Your task to perform on an android device: Open internet settings Image 0: 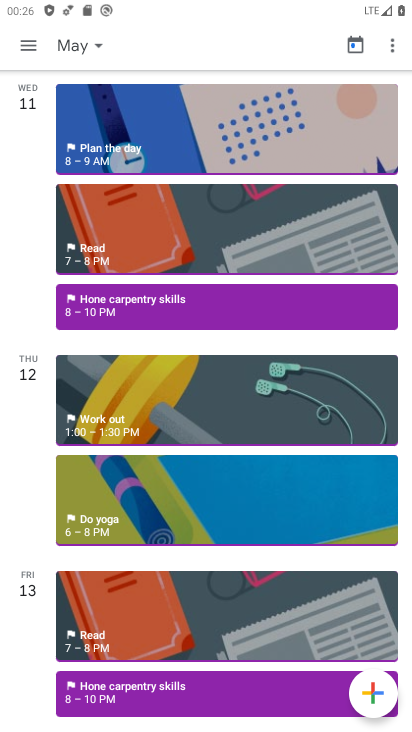
Step 0: press home button
Your task to perform on an android device: Open internet settings Image 1: 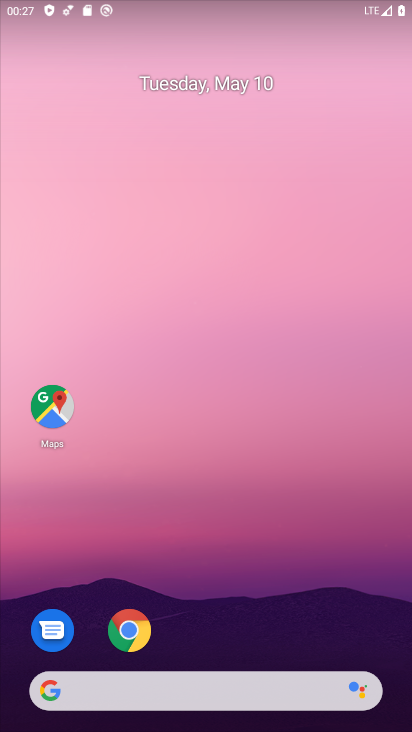
Step 1: drag from (211, 724) to (212, 235)
Your task to perform on an android device: Open internet settings Image 2: 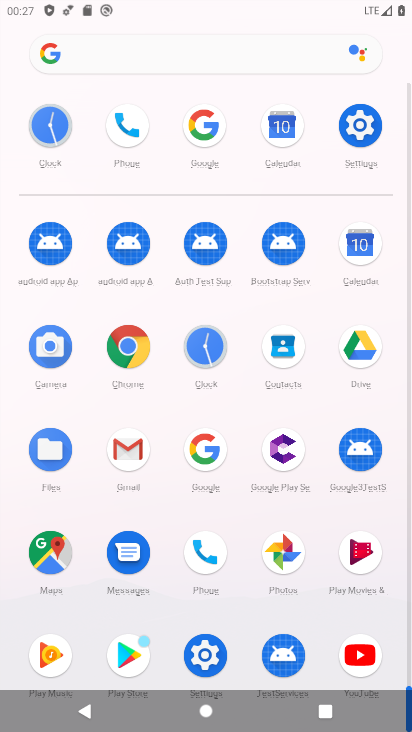
Step 2: click (361, 128)
Your task to perform on an android device: Open internet settings Image 3: 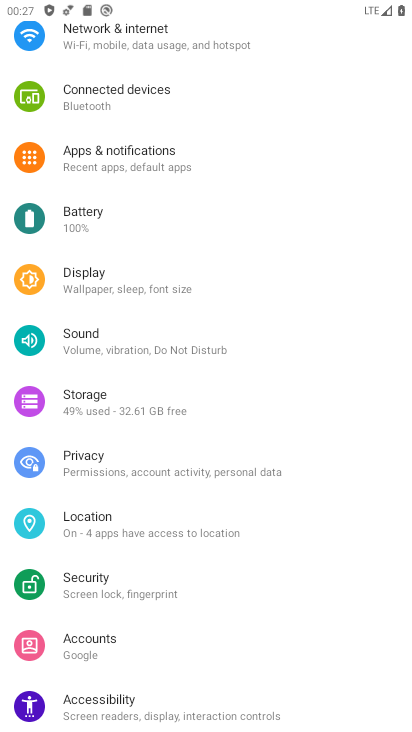
Step 3: drag from (351, 99) to (352, 414)
Your task to perform on an android device: Open internet settings Image 4: 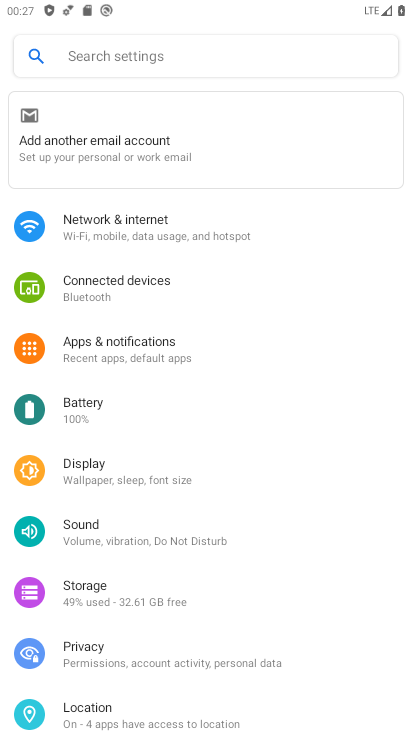
Step 4: click (122, 224)
Your task to perform on an android device: Open internet settings Image 5: 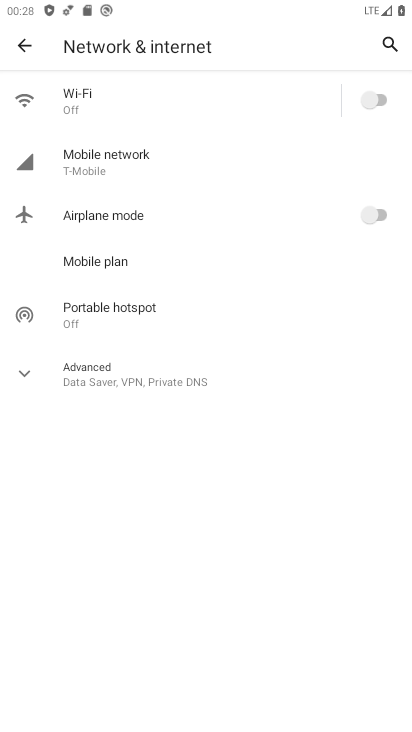
Step 5: click (78, 173)
Your task to perform on an android device: Open internet settings Image 6: 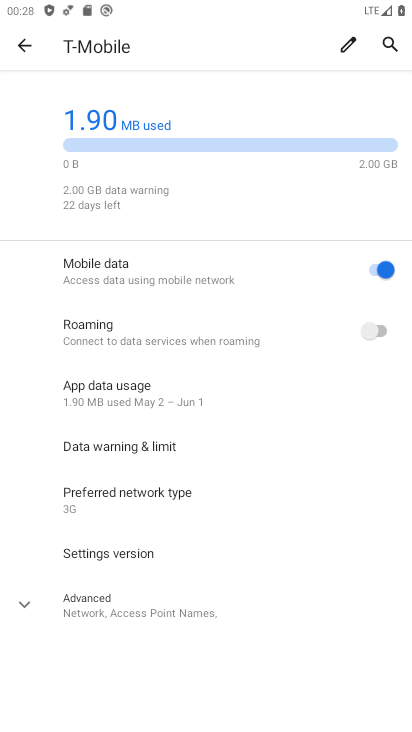
Step 6: task complete